Your task to perform on an android device: find photos in the google photos app Image 0: 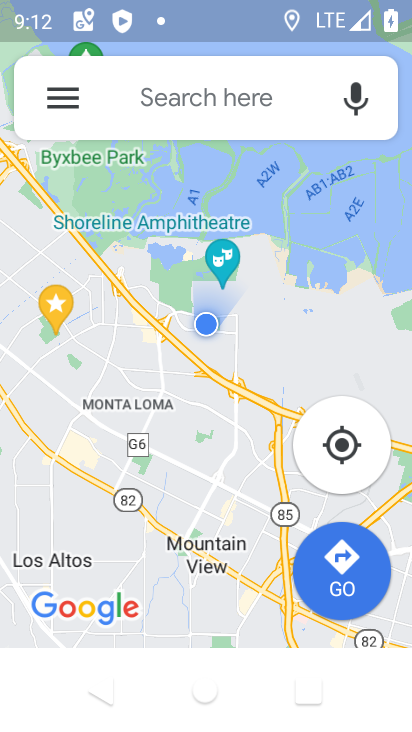
Step 0: press home button
Your task to perform on an android device: find photos in the google photos app Image 1: 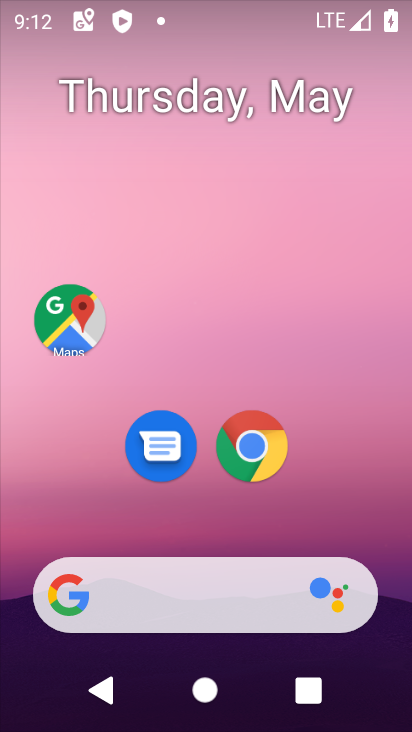
Step 1: drag from (397, 614) to (340, 98)
Your task to perform on an android device: find photos in the google photos app Image 2: 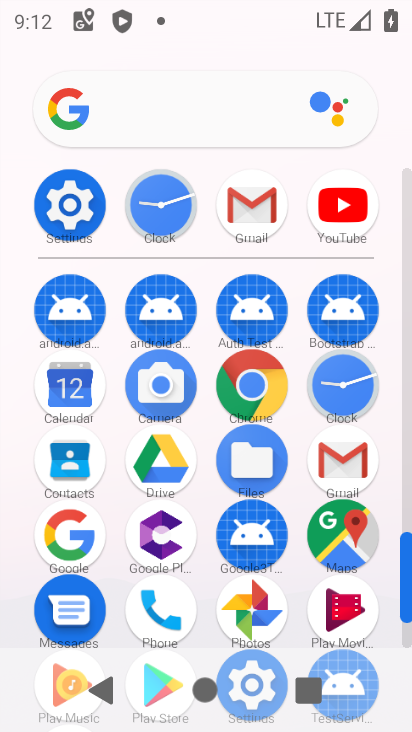
Step 2: click (407, 637)
Your task to perform on an android device: find photos in the google photos app Image 3: 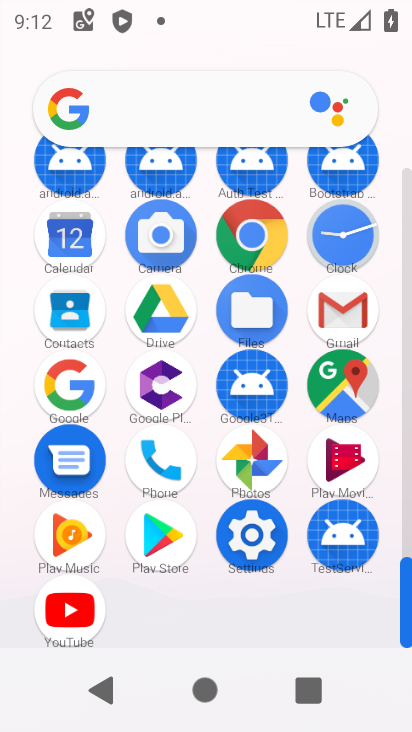
Step 3: click (250, 454)
Your task to perform on an android device: find photos in the google photos app Image 4: 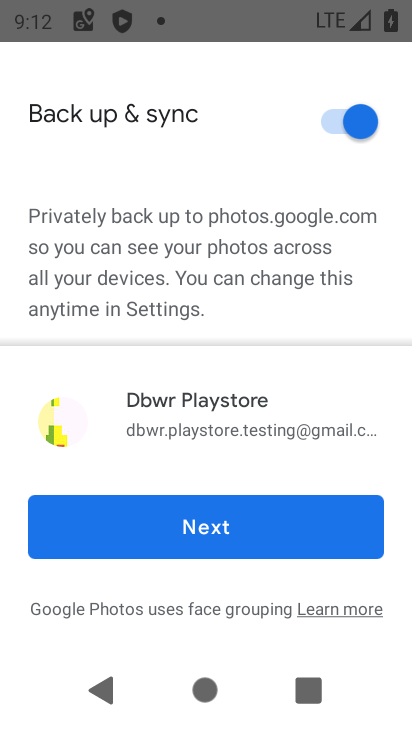
Step 4: click (221, 527)
Your task to perform on an android device: find photos in the google photos app Image 5: 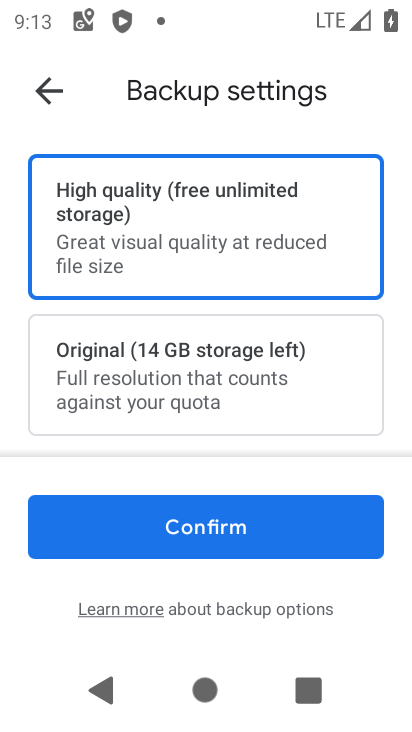
Step 5: click (221, 527)
Your task to perform on an android device: find photos in the google photos app Image 6: 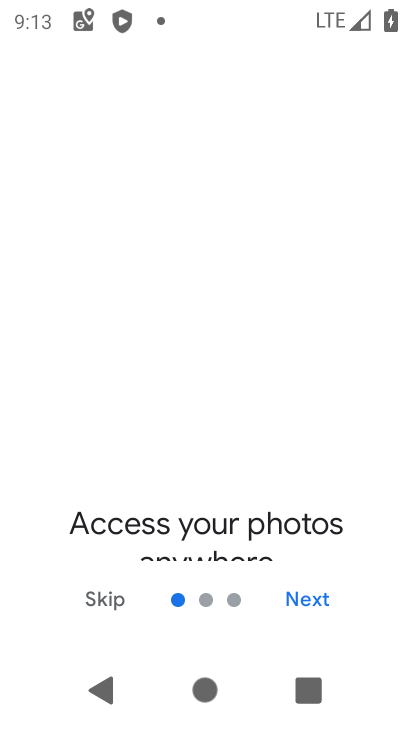
Step 6: click (98, 600)
Your task to perform on an android device: find photos in the google photos app Image 7: 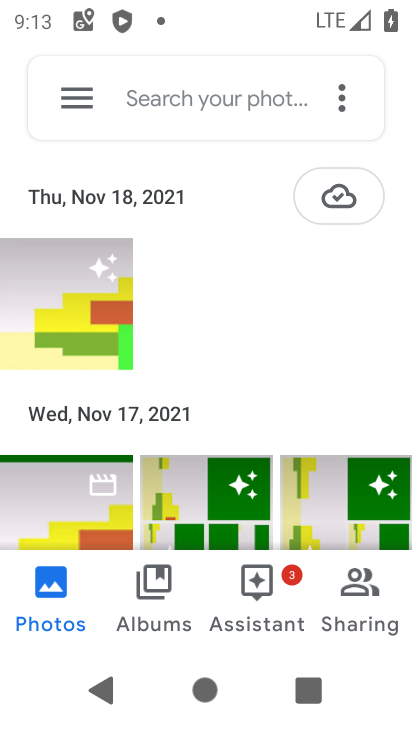
Step 7: task complete